Your task to perform on an android device: Open internet settings Image 0: 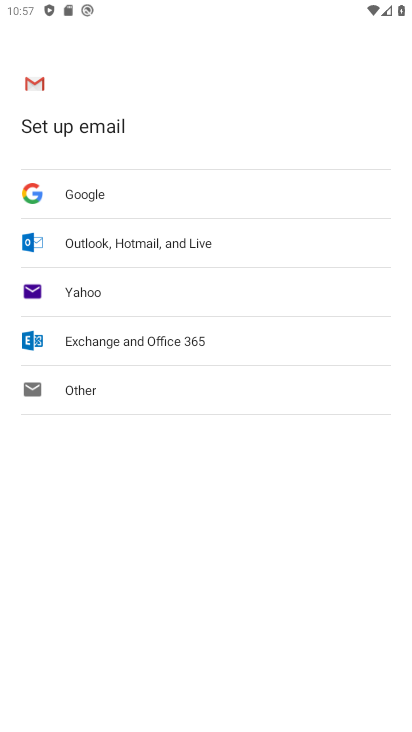
Step 0: press home button
Your task to perform on an android device: Open internet settings Image 1: 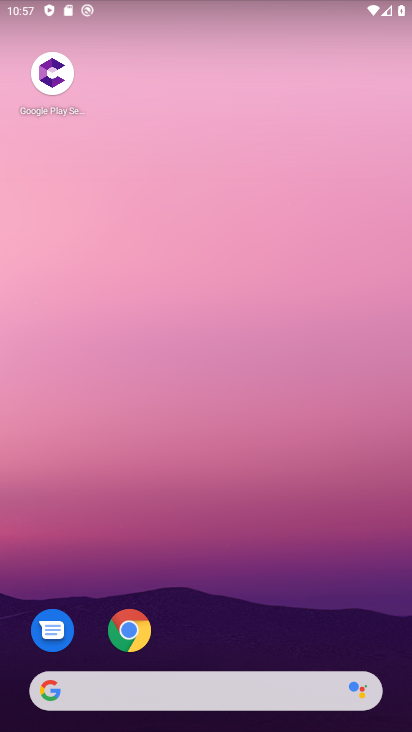
Step 1: drag from (205, 666) to (362, 99)
Your task to perform on an android device: Open internet settings Image 2: 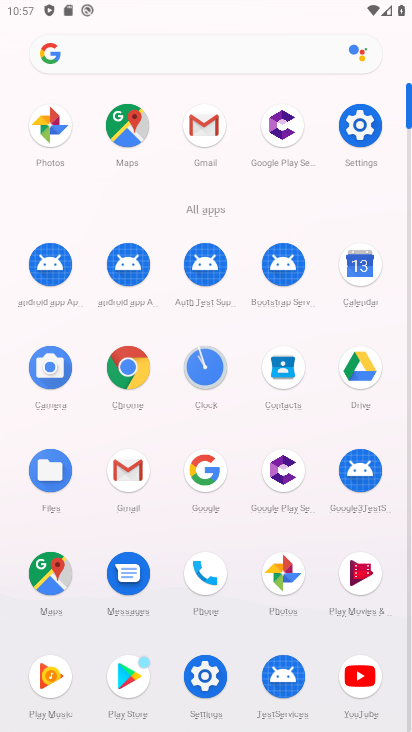
Step 2: click (179, 685)
Your task to perform on an android device: Open internet settings Image 3: 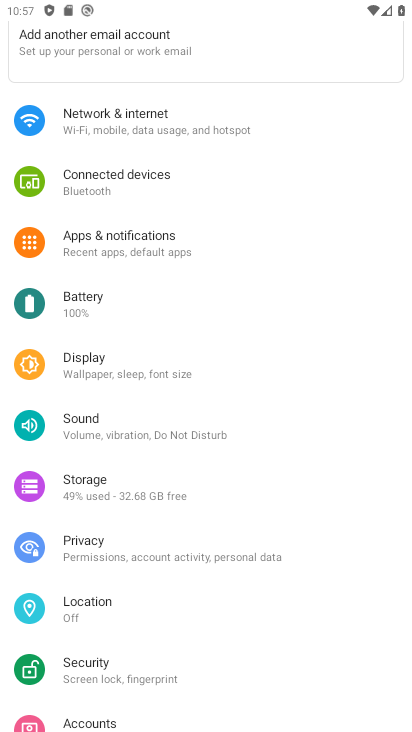
Step 3: click (208, 131)
Your task to perform on an android device: Open internet settings Image 4: 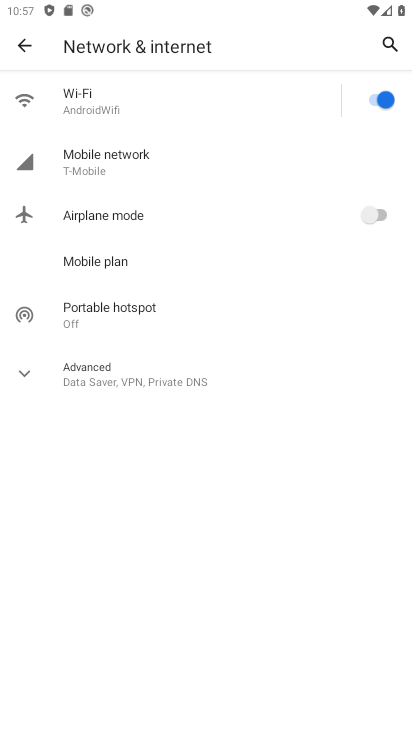
Step 4: click (170, 170)
Your task to perform on an android device: Open internet settings Image 5: 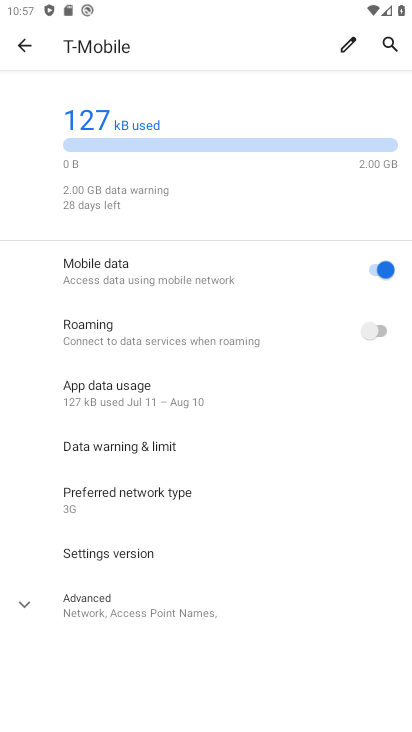
Step 5: task complete